Your task to perform on an android device: Open the phone app and click the voicemail tab. Image 0: 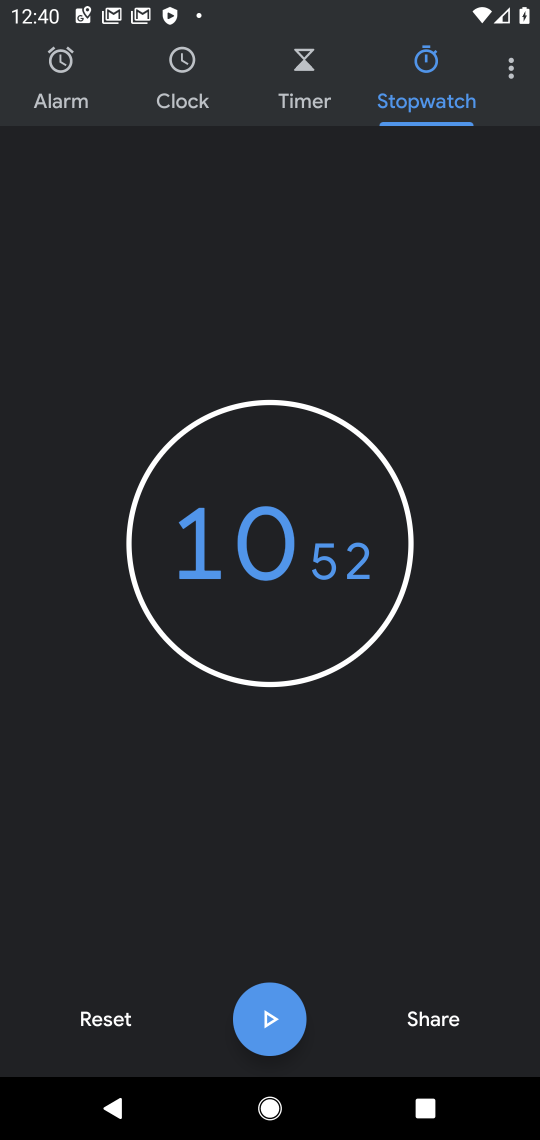
Step 0: press home button
Your task to perform on an android device: Open the phone app and click the voicemail tab. Image 1: 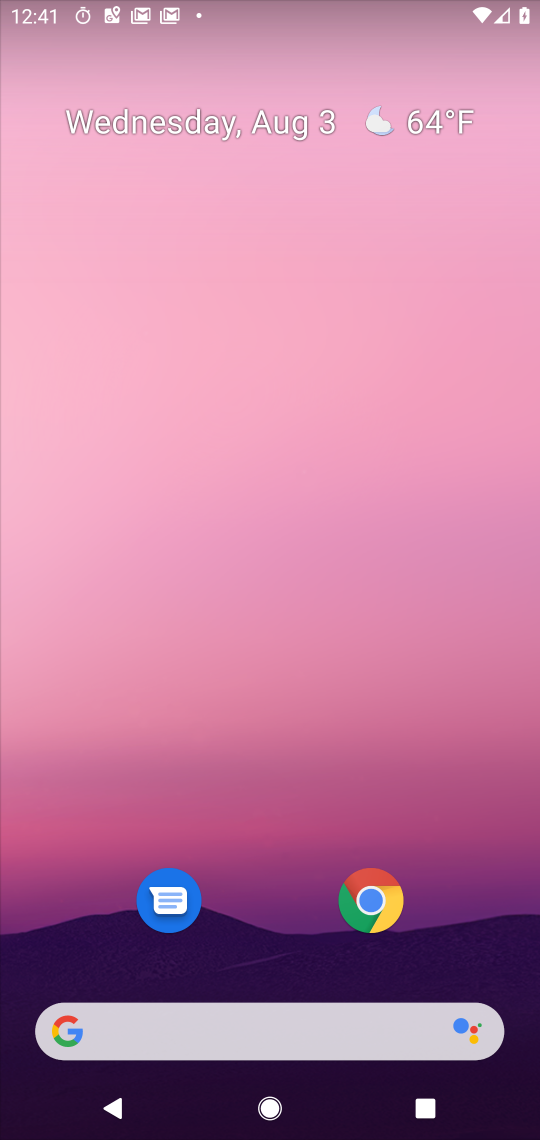
Step 1: drag from (495, 893) to (349, 79)
Your task to perform on an android device: Open the phone app and click the voicemail tab. Image 2: 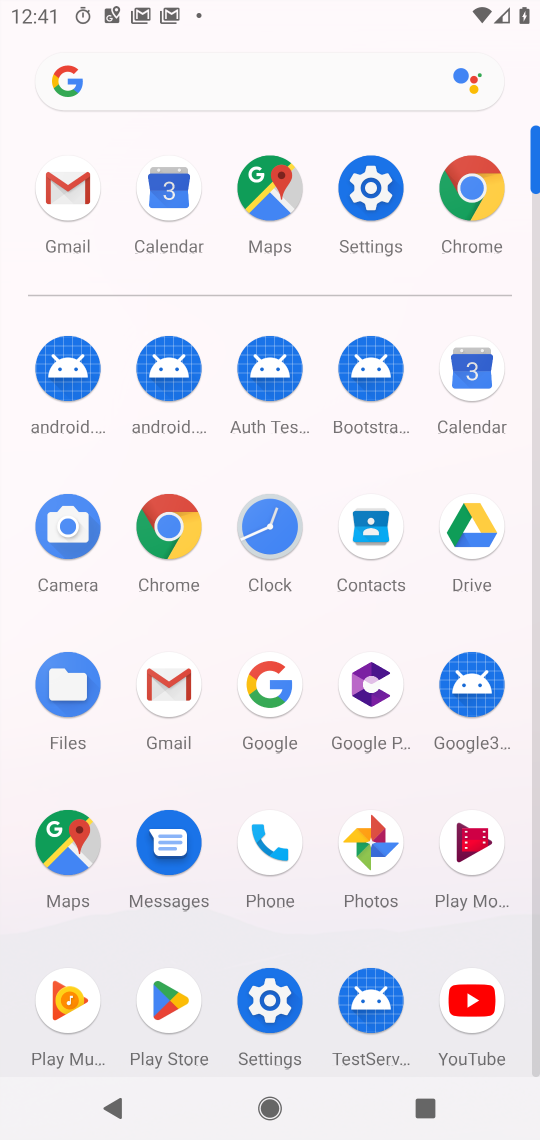
Step 2: click (253, 841)
Your task to perform on an android device: Open the phone app and click the voicemail tab. Image 3: 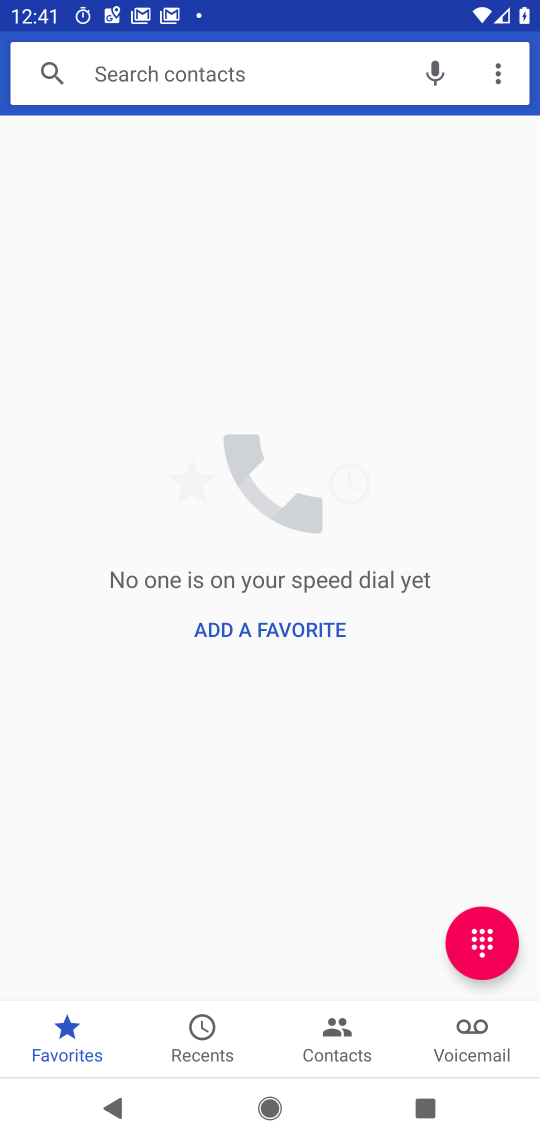
Step 3: click (478, 1009)
Your task to perform on an android device: Open the phone app and click the voicemail tab. Image 4: 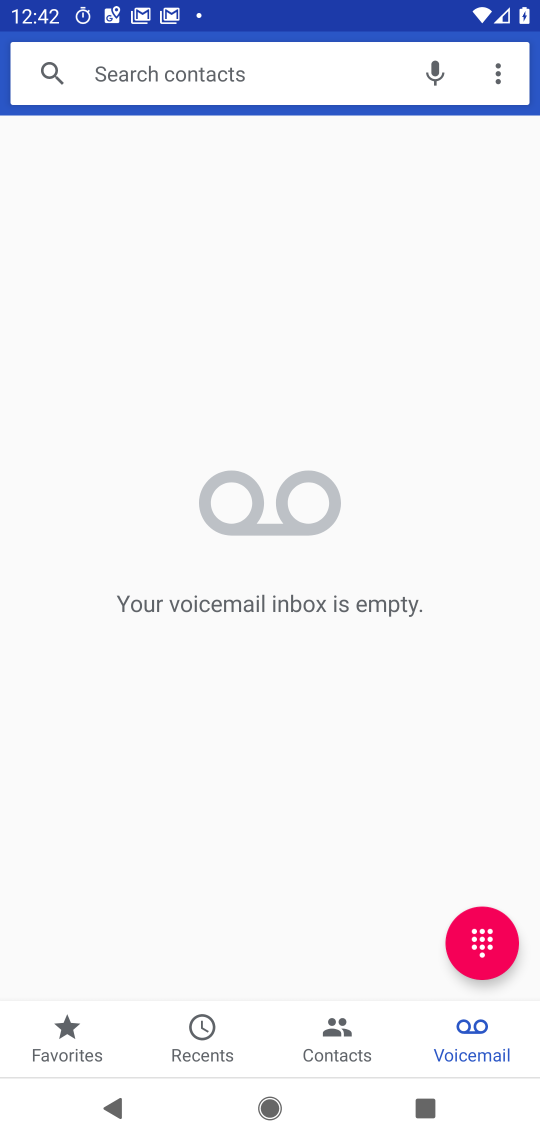
Step 4: task complete